Your task to perform on an android device: Is it going to rain tomorrow? Image 0: 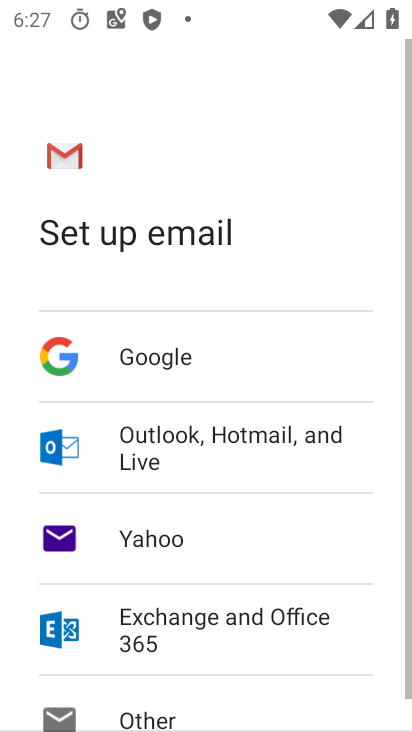
Step 0: press home button
Your task to perform on an android device: Is it going to rain tomorrow? Image 1: 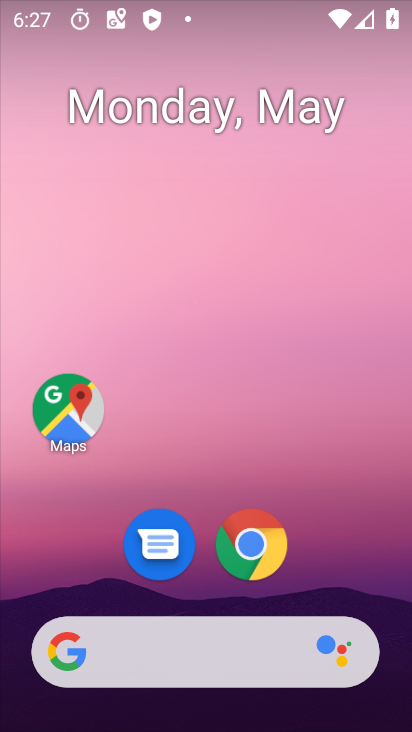
Step 1: drag from (365, 517) to (207, 0)
Your task to perform on an android device: Is it going to rain tomorrow? Image 2: 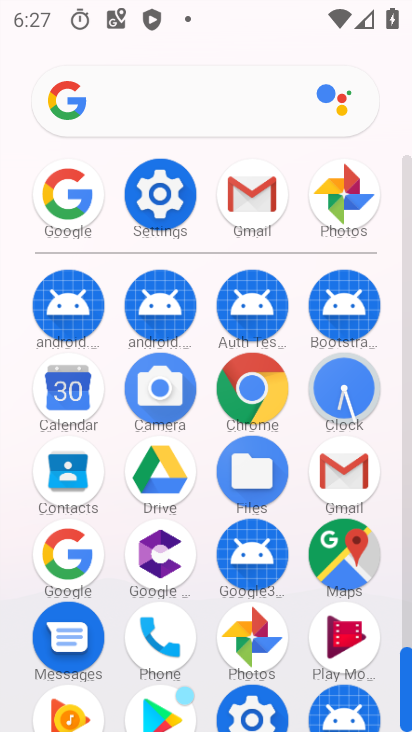
Step 2: click (79, 554)
Your task to perform on an android device: Is it going to rain tomorrow? Image 3: 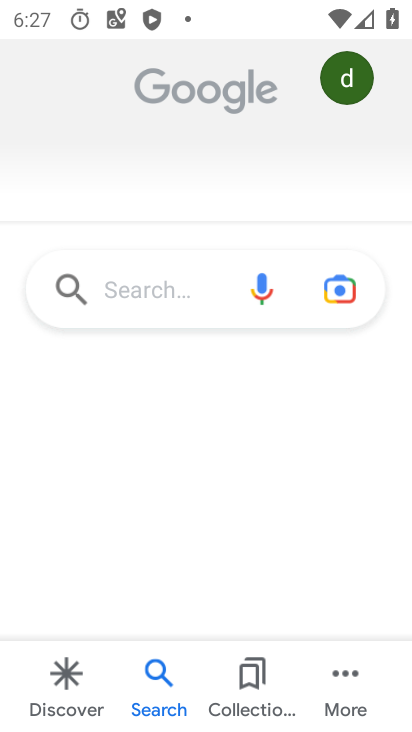
Step 3: click (190, 297)
Your task to perform on an android device: Is it going to rain tomorrow? Image 4: 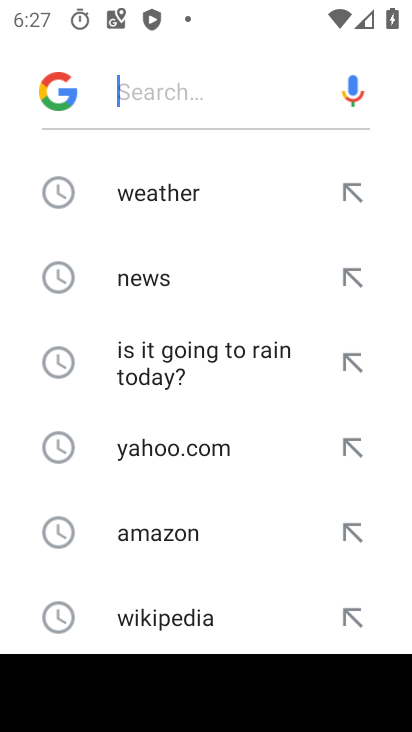
Step 4: click (185, 208)
Your task to perform on an android device: Is it going to rain tomorrow? Image 5: 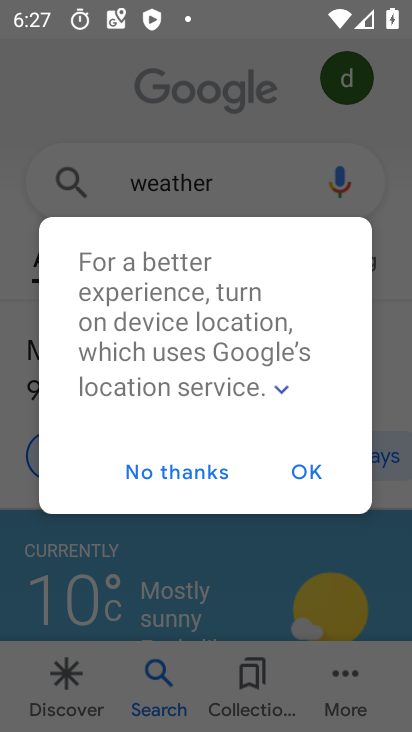
Step 5: click (234, 453)
Your task to perform on an android device: Is it going to rain tomorrow? Image 6: 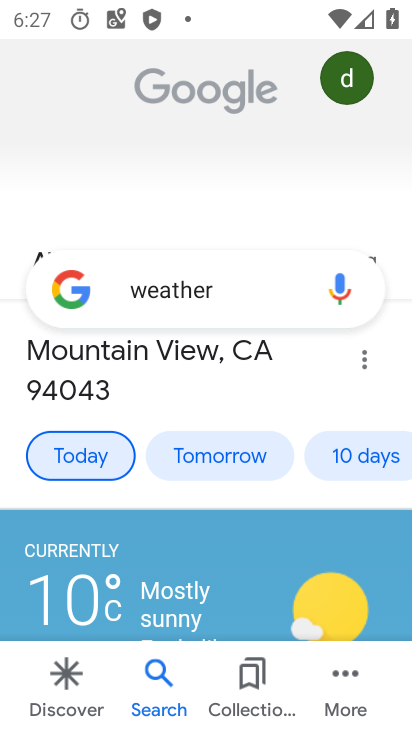
Step 6: click (239, 443)
Your task to perform on an android device: Is it going to rain tomorrow? Image 7: 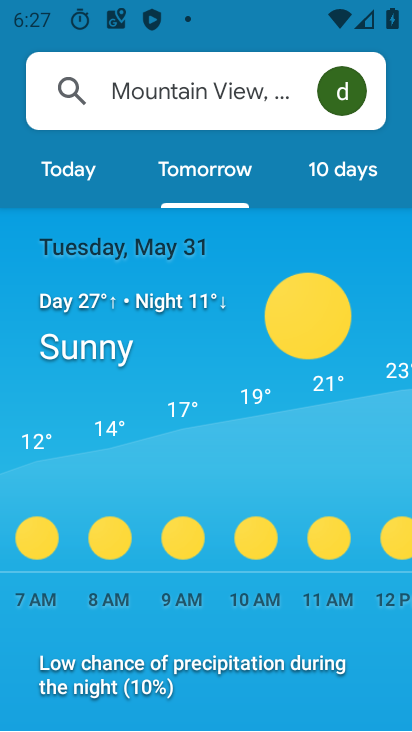
Step 7: task complete